Your task to perform on an android device: Is it going to rain this weekend? Image 0: 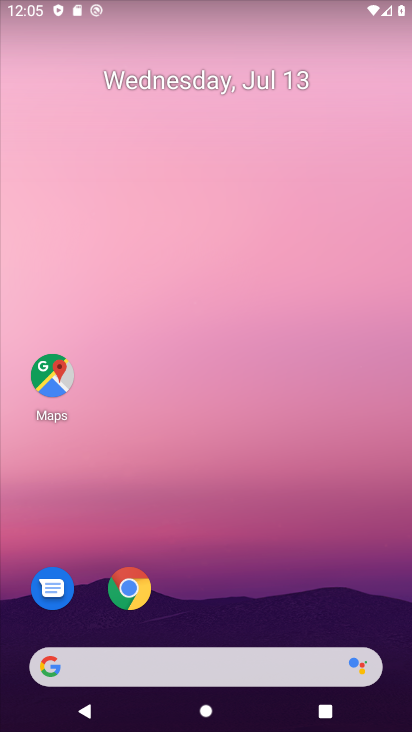
Step 0: drag from (189, 638) to (205, 247)
Your task to perform on an android device: Is it going to rain this weekend? Image 1: 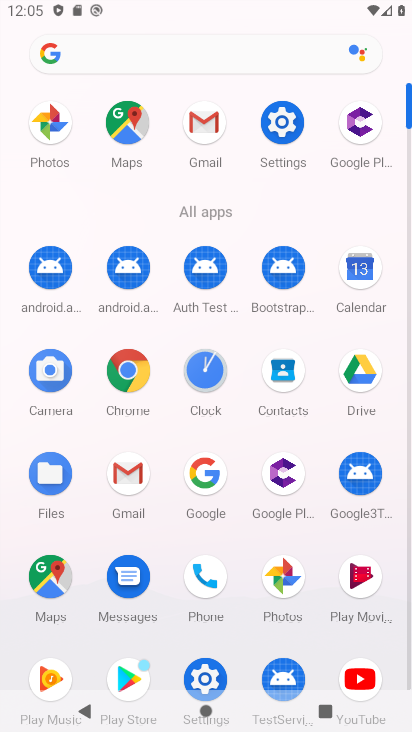
Step 1: click (195, 485)
Your task to perform on an android device: Is it going to rain this weekend? Image 2: 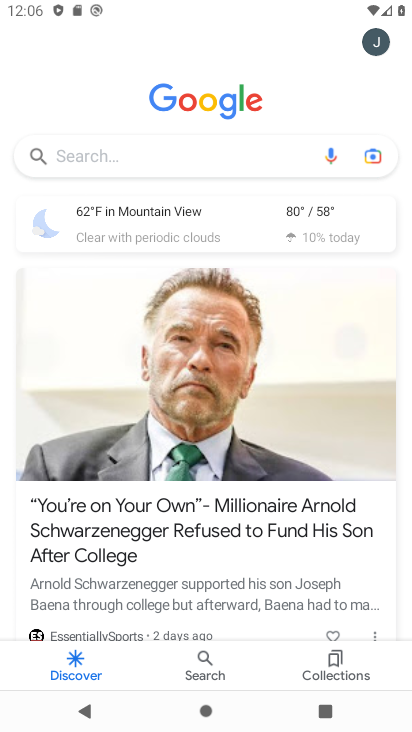
Step 2: click (151, 150)
Your task to perform on an android device: Is it going to rain this weekend? Image 3: 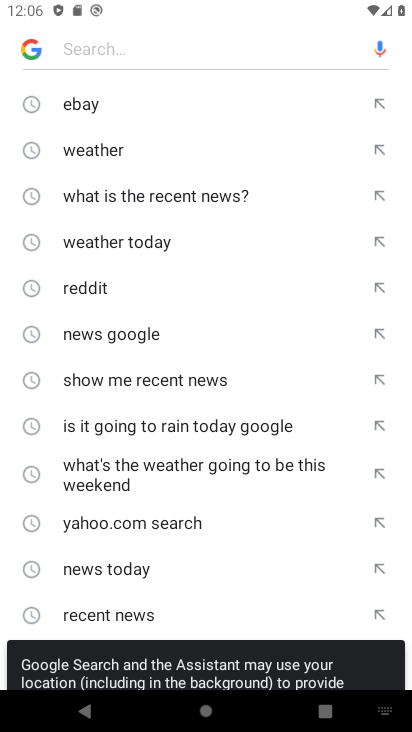
Step 3: click (214, 425)
Your task to perform on an android device: Is it going to rain this weekend? Image 4: 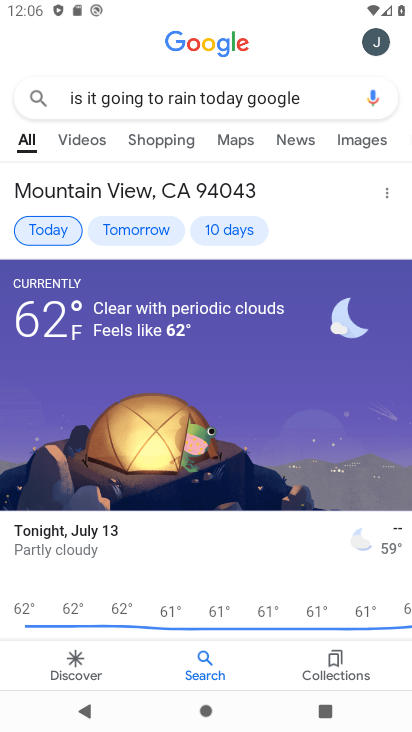
Step 4: click (233, 225)
Your task to perform on an android device: Is it going to rain this weekend? Image 5: 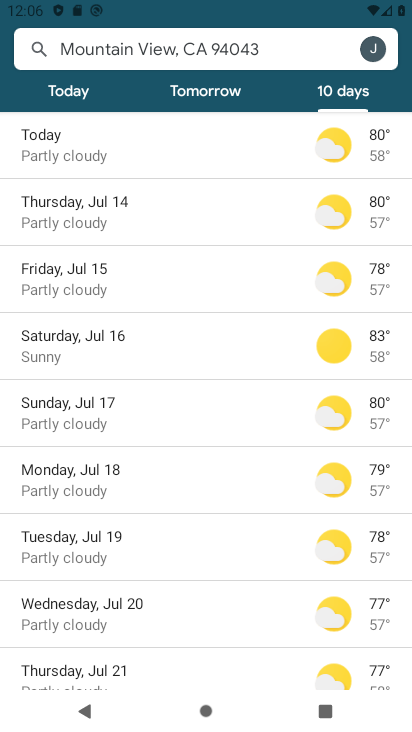
Step 5: task complete